Your task to perform on an android device: Open Chrome and go to the settings page Image 0: 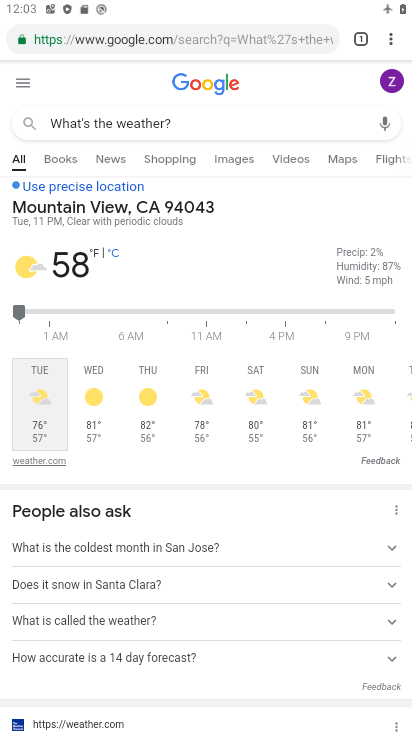
Step 0: drag from (397, 25) to (254, 440)
Your task to perform on an android device: Open Chrome and go to the settings page Image 1: 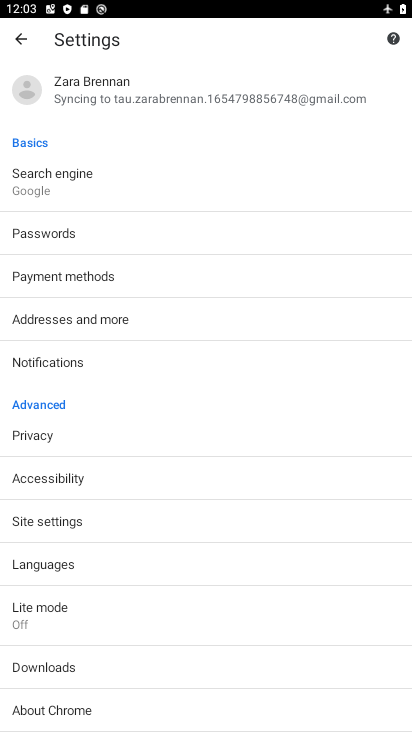
Step 1: task complete